Your task to perform on an android device: see sites visited before in the chrome app Image 0: 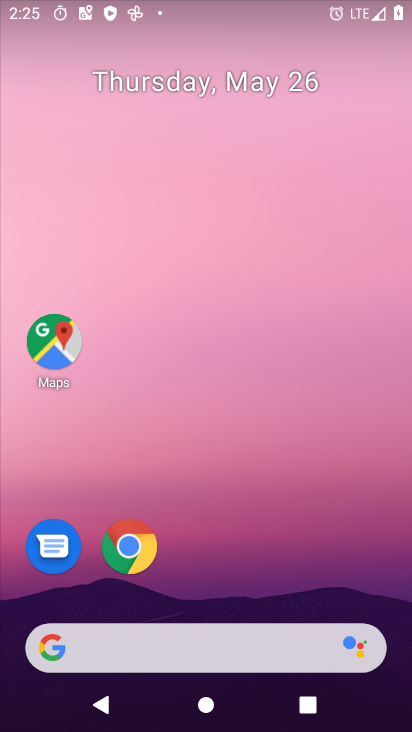
Step 0: drag from (194, 559) to (241, 156)
Your task to perform on an android device: see sites visited before in the chrome app Image 1: 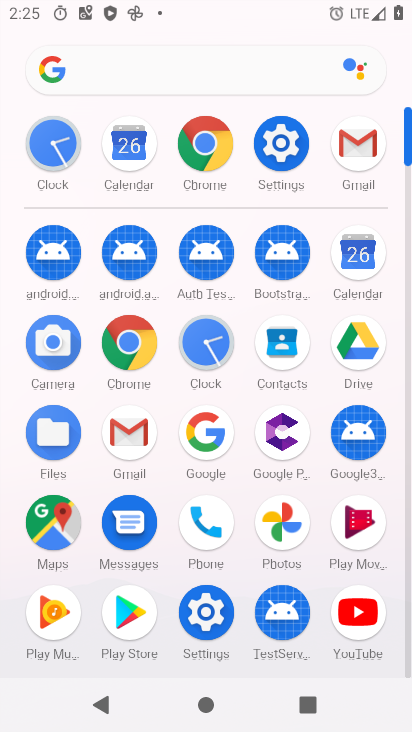
Step 1: click (201, 135)
Your task to perform on an android device: see sites visited before in the chrome app Image 2: 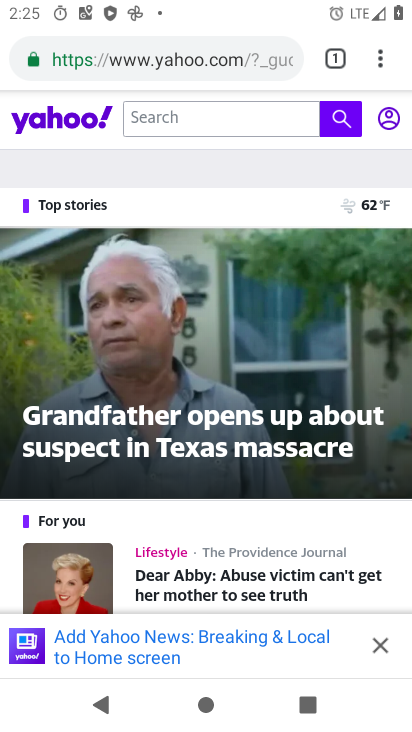
Step 2: click (370, 62)
Your task to perform on an android device: see sites visited before in the chrome app Image 3: 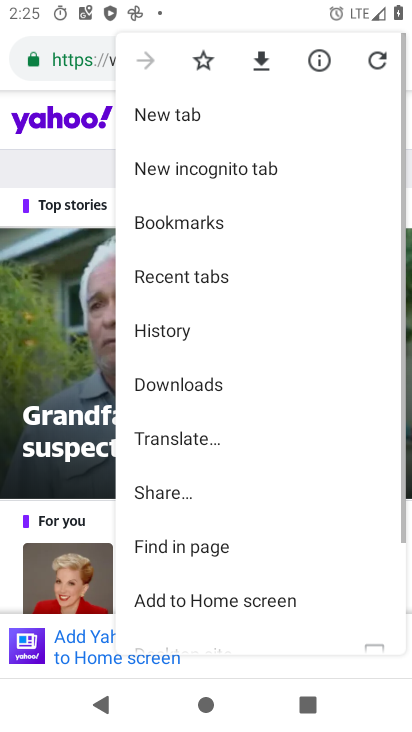
Step 3: drag from (244, 569) to (281, 205)
Your task to perform on an android device: see sites visited before in the chrome app Image 4: 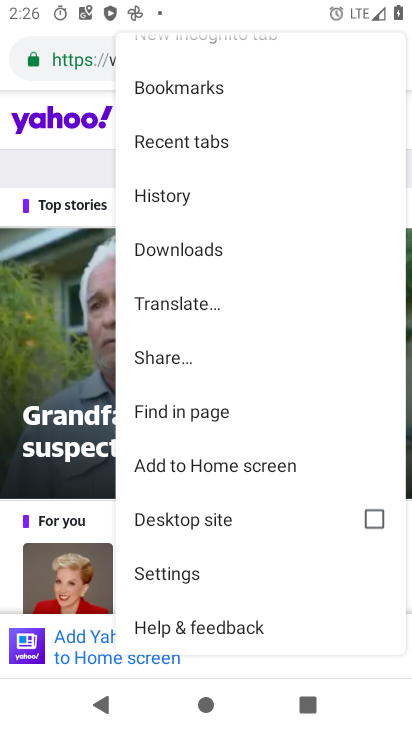
Step 4: click (194, 188)
Your task to perform on an android device: see sites visited before in the chrome app Image 5: 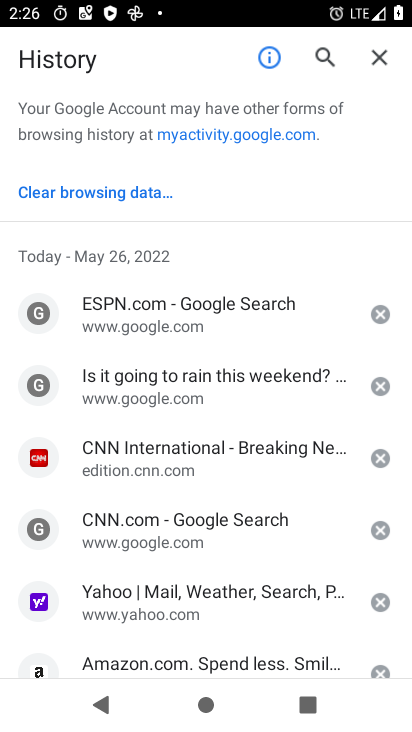
Step 5: task complete